Your task to perform on an android device: Go to Reddit.com Image 0: 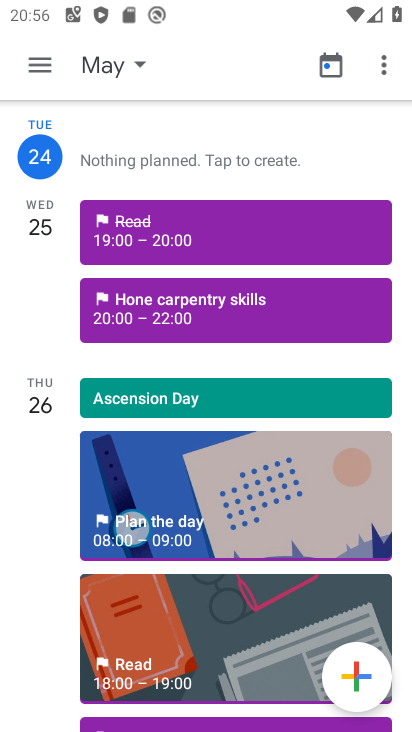
Step 0: press back button
Your task to perform on an android device: Go to Reddit.com Image 1: 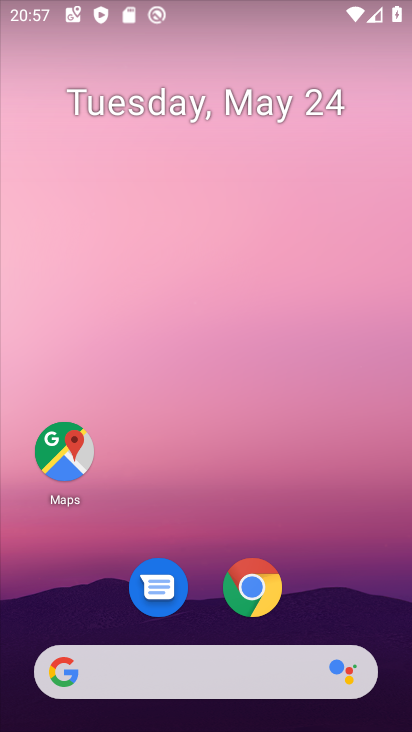
Step 1: drag from (338, 593) to (263, 26)
Your task to perform on an android device: Go to Reddit.com Image 2: 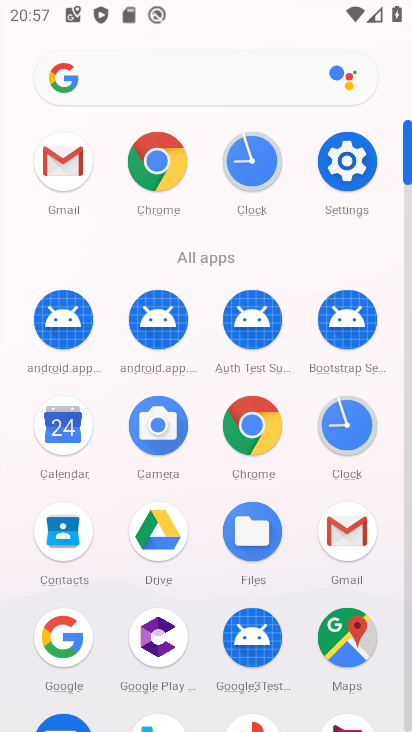
Step 2: click (254, 422)
Your task to perform on an android device: Go to Reddit.com Image 3: 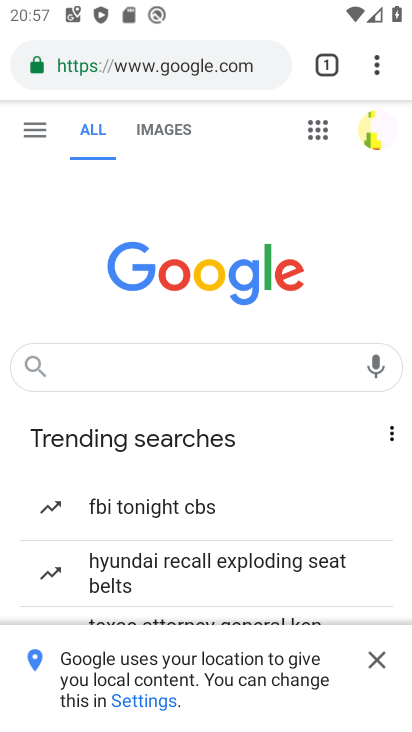
Step 3: click (192, 70)
Your task to perform on an android device: Go to Reddit.com Image 4: 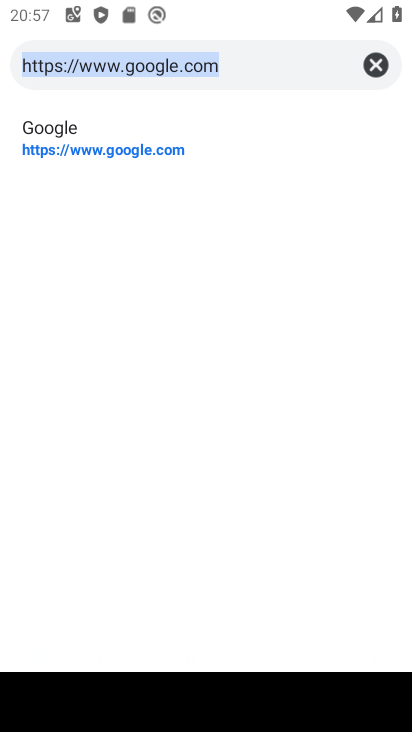
Step 4: click (377, 56)
Your task to perform on an android device: Go to Reddit.com Image 5: 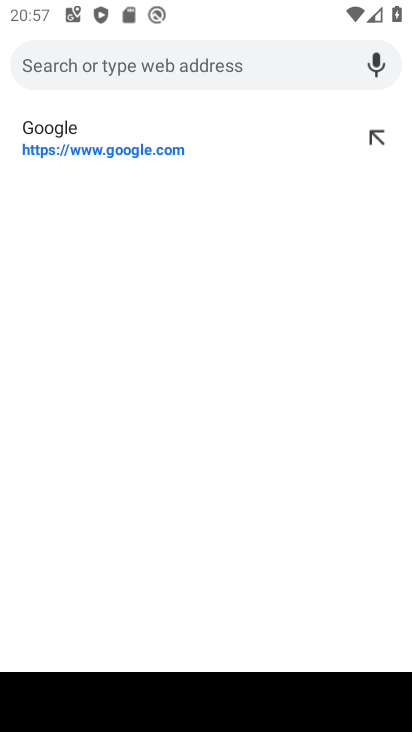
Step 5: type "Reddit.com"
Your task to perform on an android device: Go to Reddit.com Image 6: 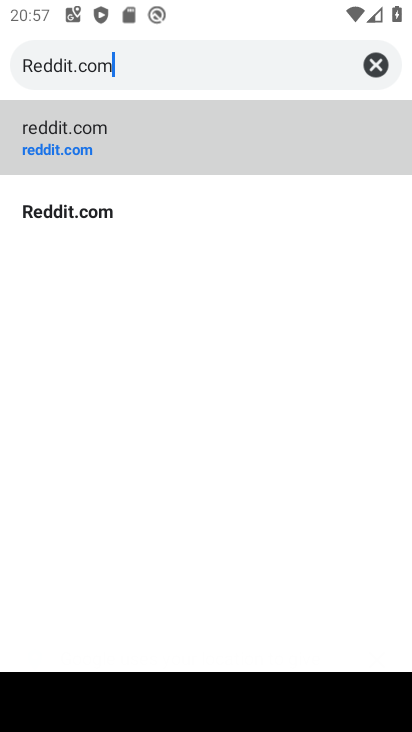
Step 6: type ""
Your task to perform on an android device: Go to Reddit.com Image 7: 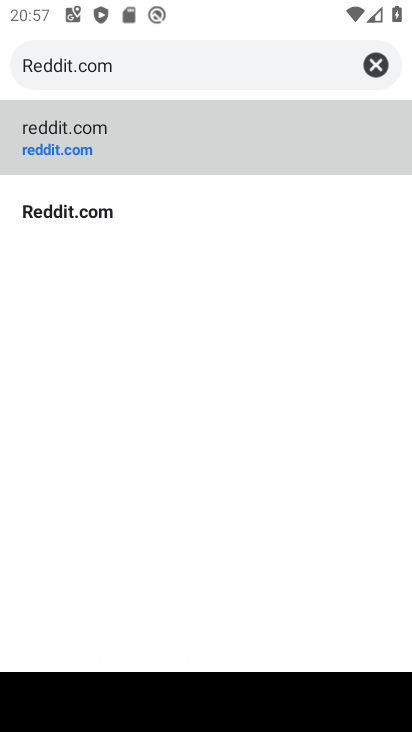
Step 7: click (118, 138)
Your task to perform on an android device: Go to Reddit.com Image 8: 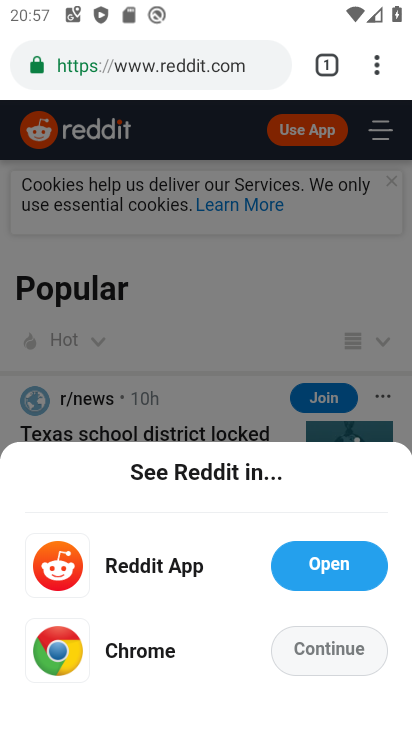
Step 8: task complete